Your task to perform on an android device: see tabs open on other devices in the chrome app Image 0: 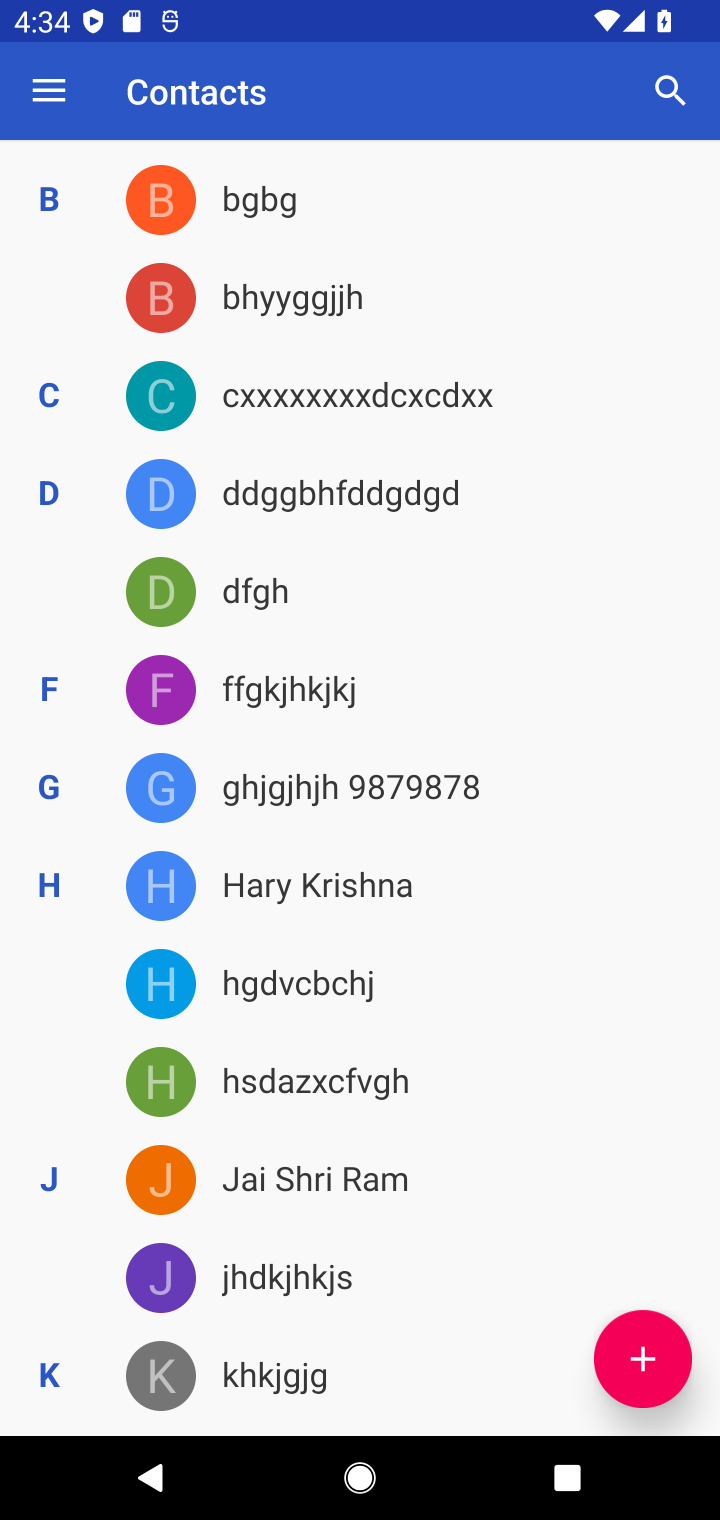
Step 0: press home button
Your task to perform on an android device: see tabs open on other devices in the chrome app Image 1: 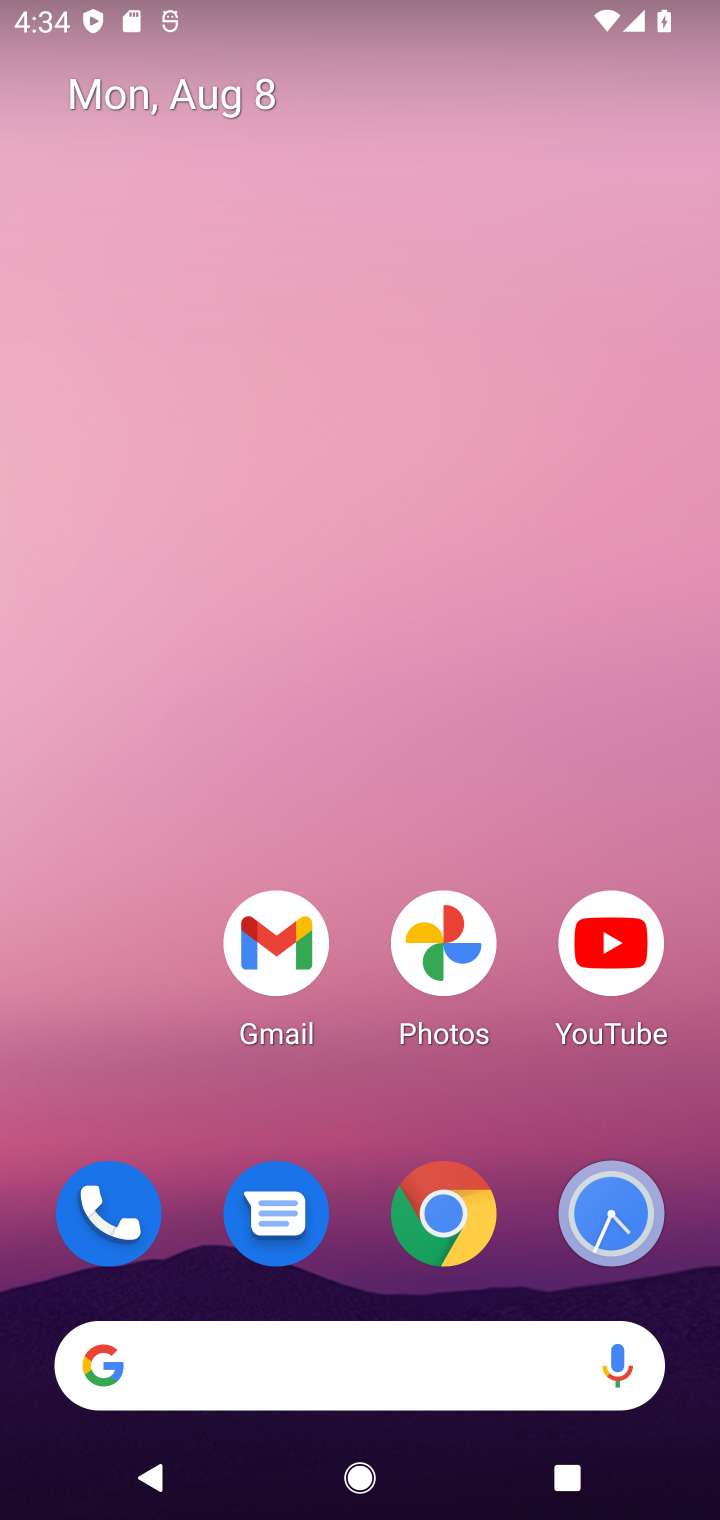
Step 1: click (441, 1227)
Your task to perform on an android device: see tabs open on other devices in the chrome app Image 2: 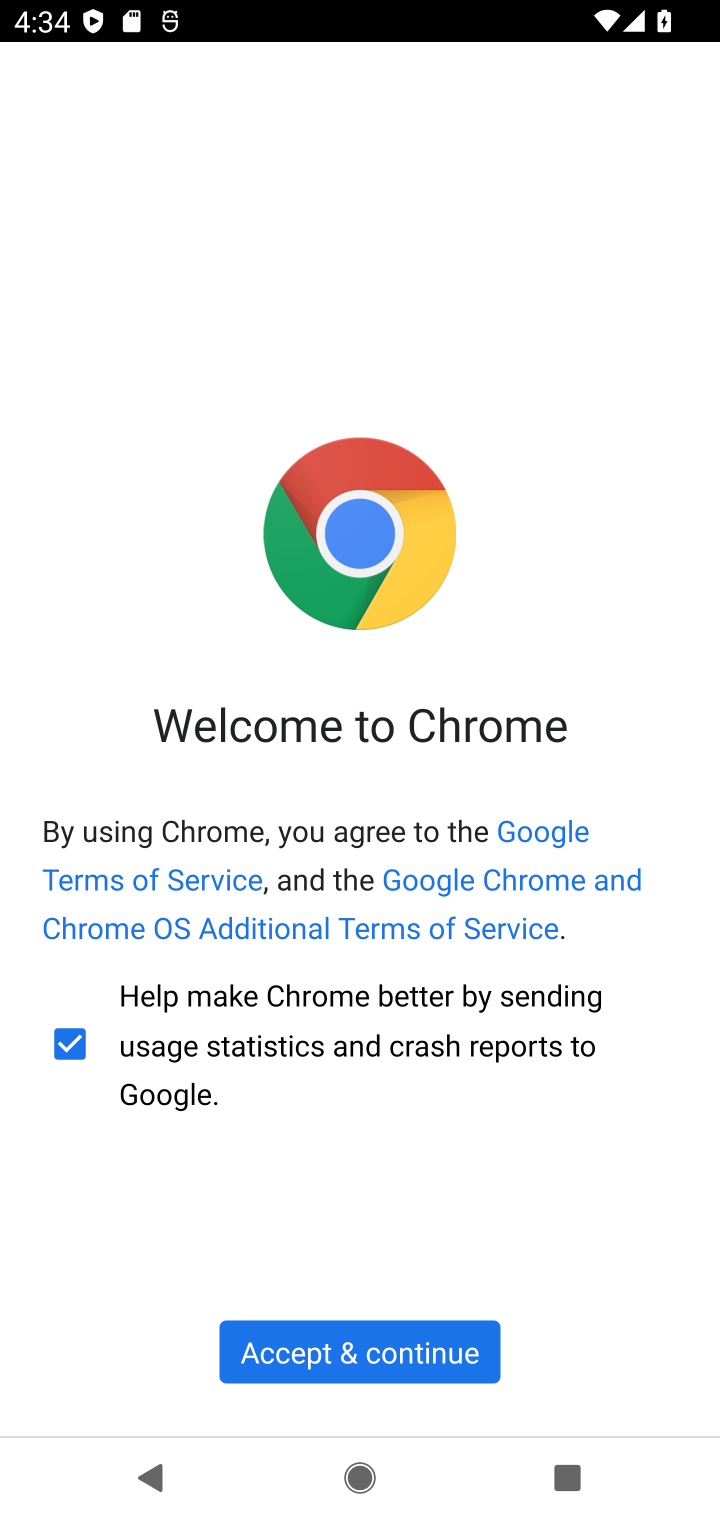
Step 2: click (374, 1372)
Your task to perform on an android device: see tabs open on other devices in the chrome app Image 3: 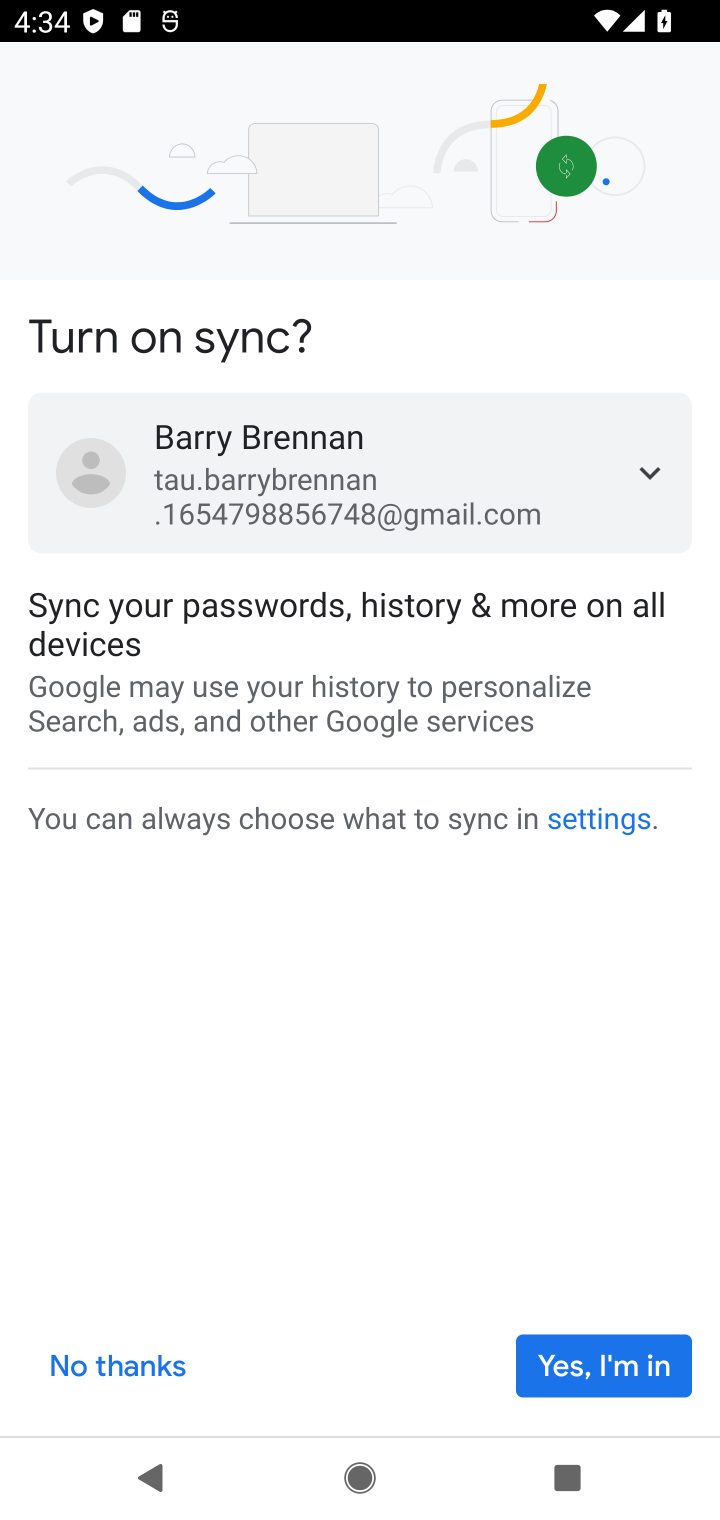
Step 3: click (612, 1365)
Your task to perform on an android device: see tabs open on other devices in the chrome app Image 4: 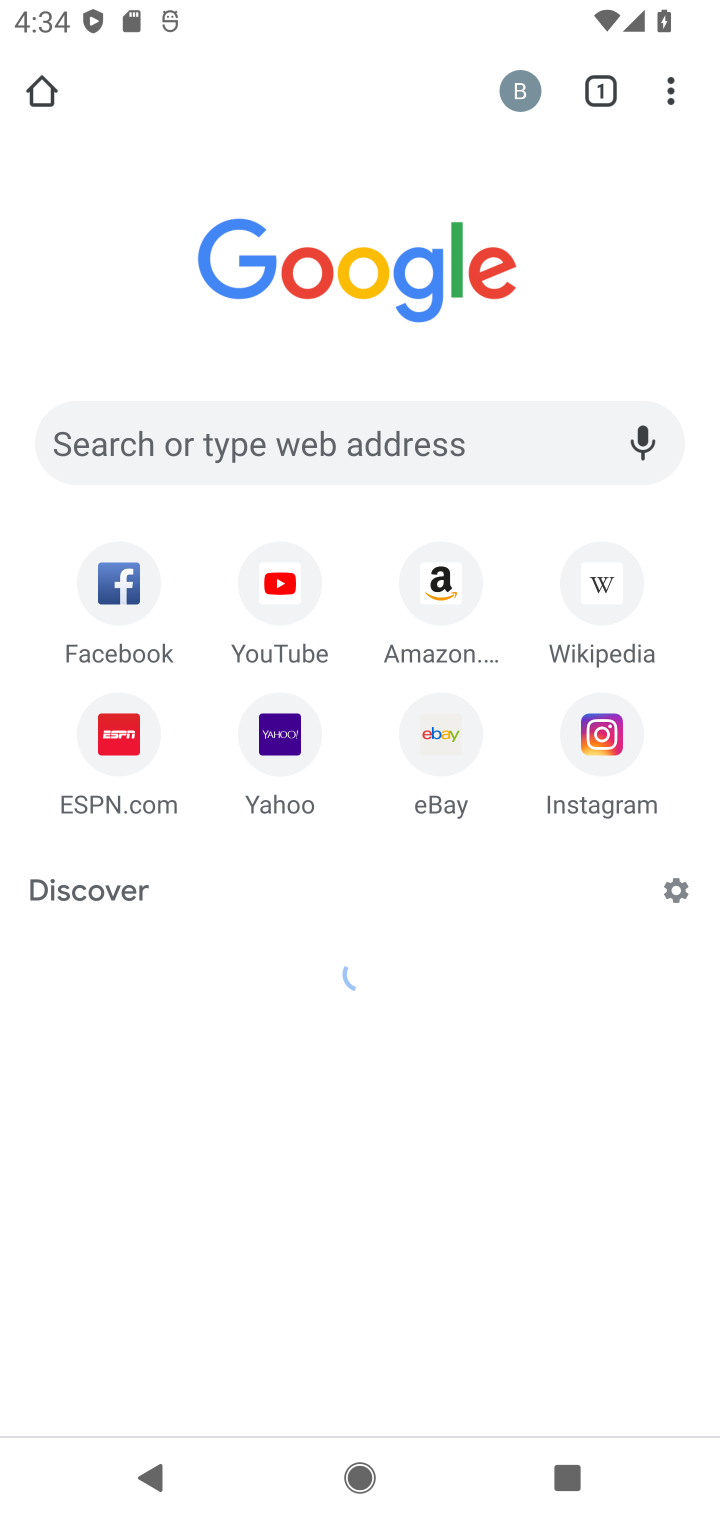
Step 4: click (680, 97)
Your task to perform on an android device: see tabs open on other devices in the chrome app Image 5: 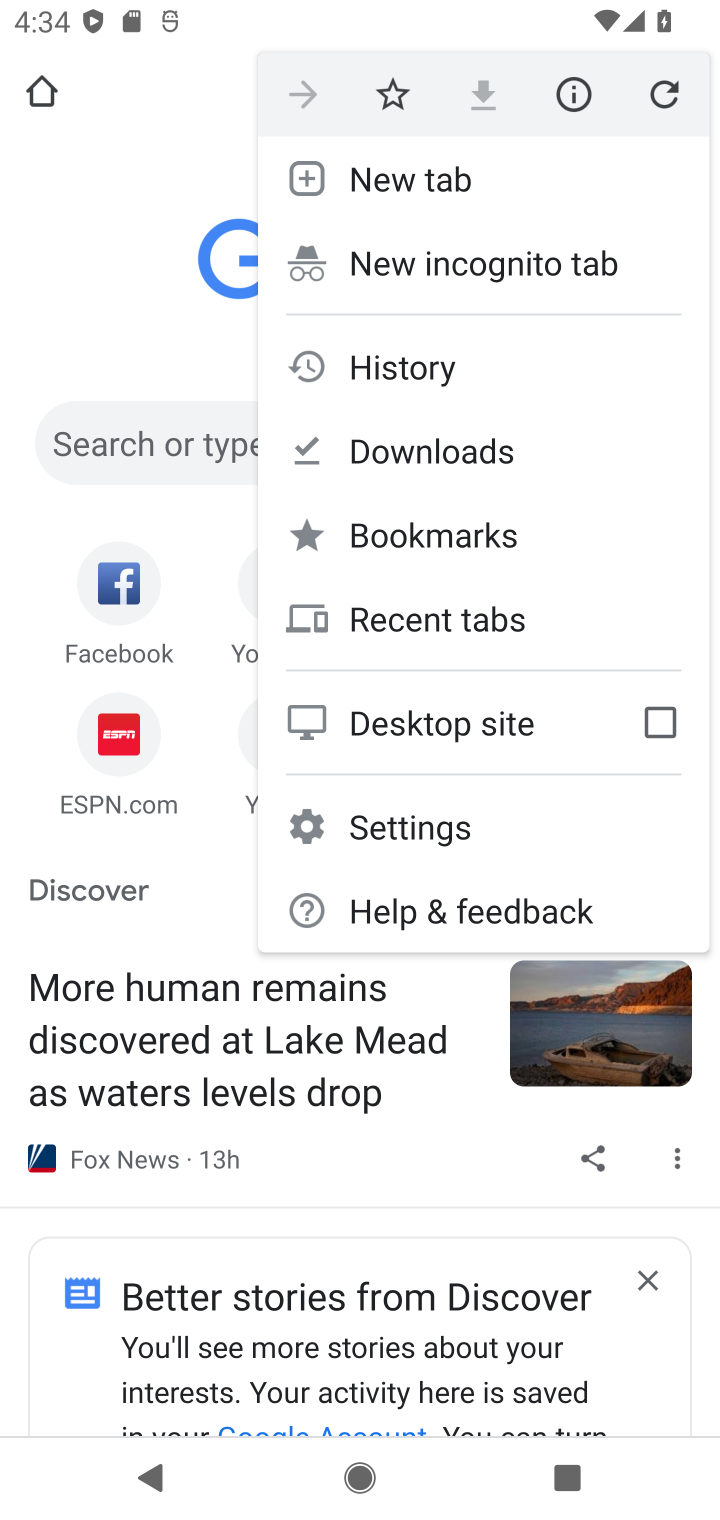
Step 5: click (439, 639)
Your task to perform on an android device: see tabs open on other devices in the chrome app Image 6: 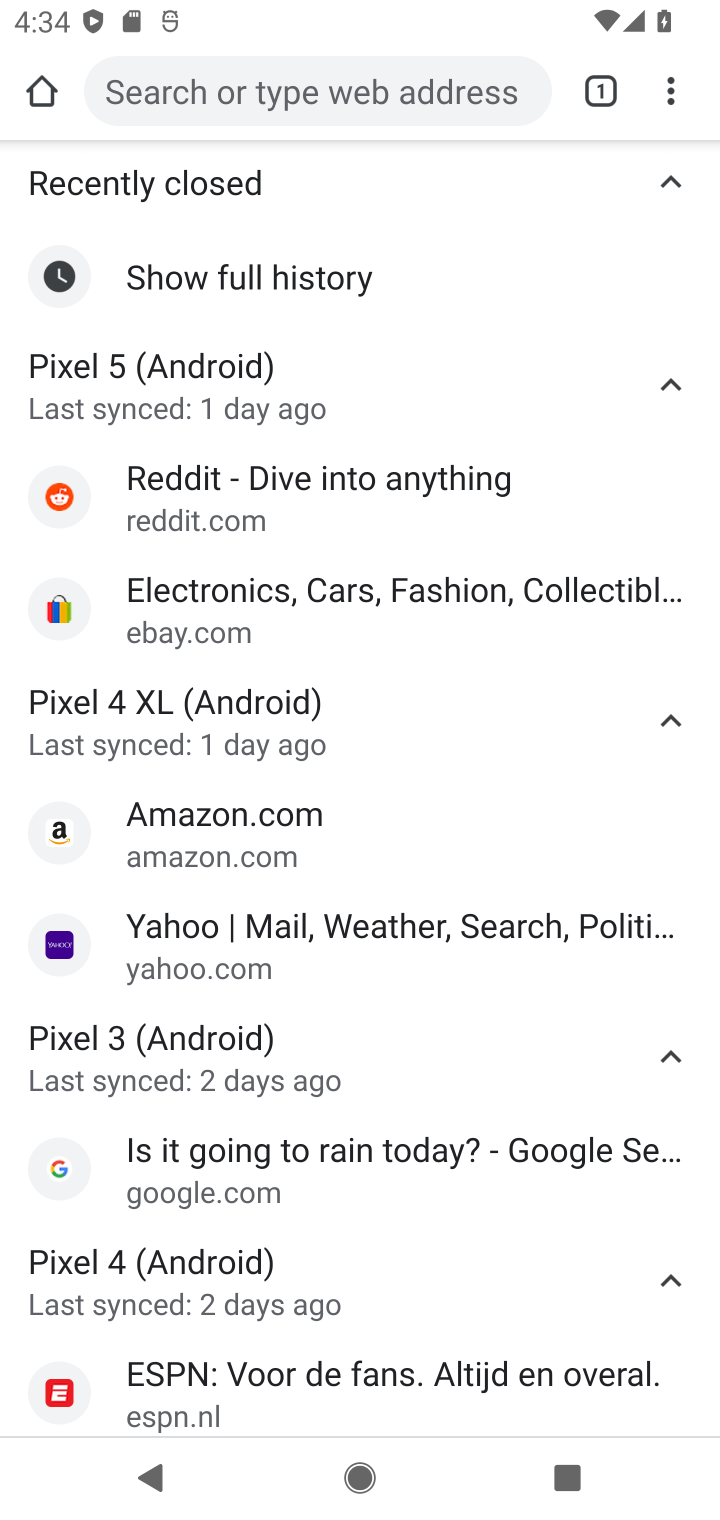
Step 6: task complete